Your task to perform on an android device: turn off smart reply in the gmail app Image 0: 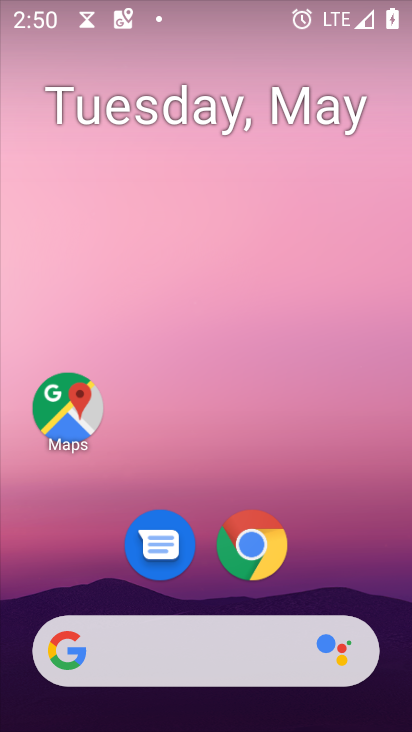
Step 0: drag from (346, 530) to (228, 28)
Your task to perform on an android device: turn off smart reply in the gmail app Image 1: 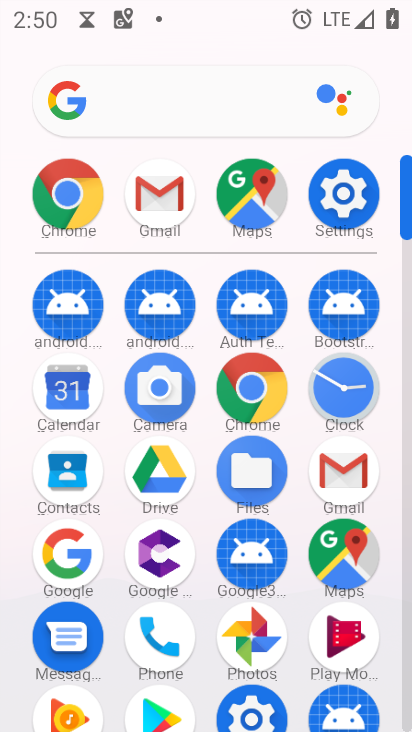
Step 1: drag from (8, 569) to (6, 238)
Your task to perform on an android device: turn off smart reply in the gmail app Image 2: 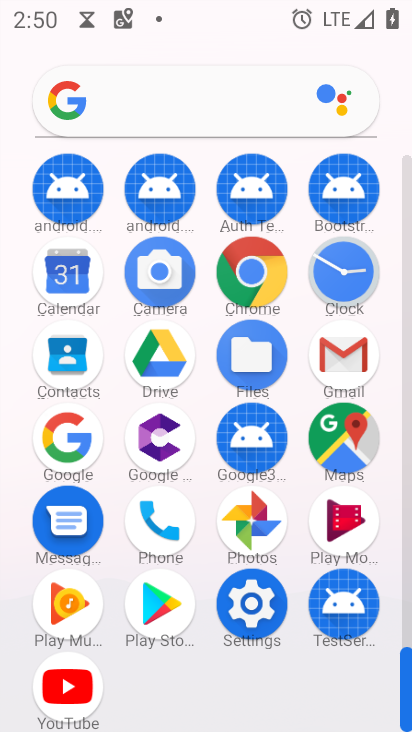
Step 2: click (344, 345)
Your task to perform on an android device: turn off smart reply in the gmail app Image 3: 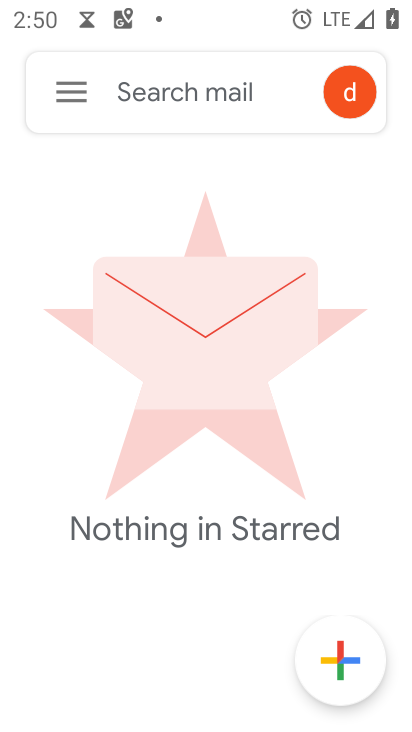
Step 3: click (77, 85)
Your task to perform on an android device: turn off smart reply in the gmail app Image 4: 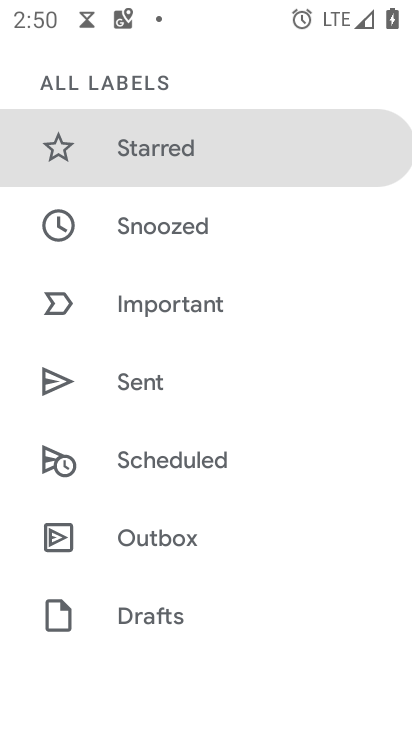
Step 4: drag from (191, 616) to (246, 147)
Your task to perform on an android device: turn off smart reply in the gmail app Image 5: 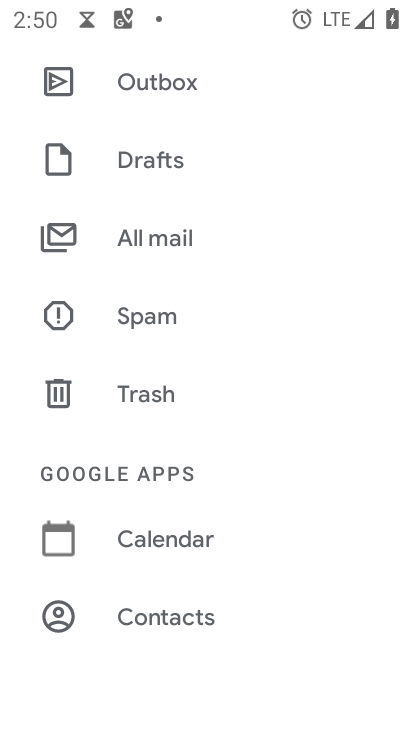
Step 5: drag from (185, 540) to (222, 153)
Your task to perform on an android device: turn off smart reply in the gmail app Image 6: 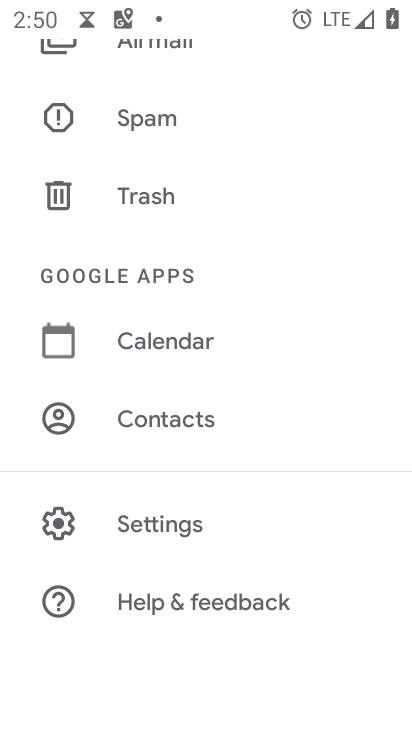
Step 6: click (167, 522)
Your task to perform on an android device: turn off smart reply in the gmail app Image 7: 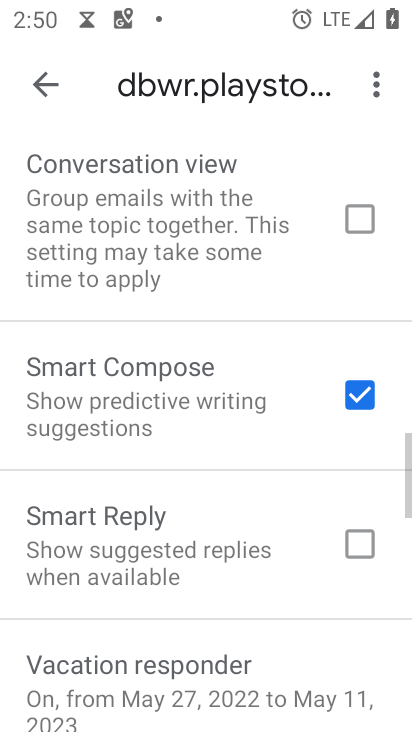
Step 7: task complete